Your task to perform on an android device: Open eBay Image 0: 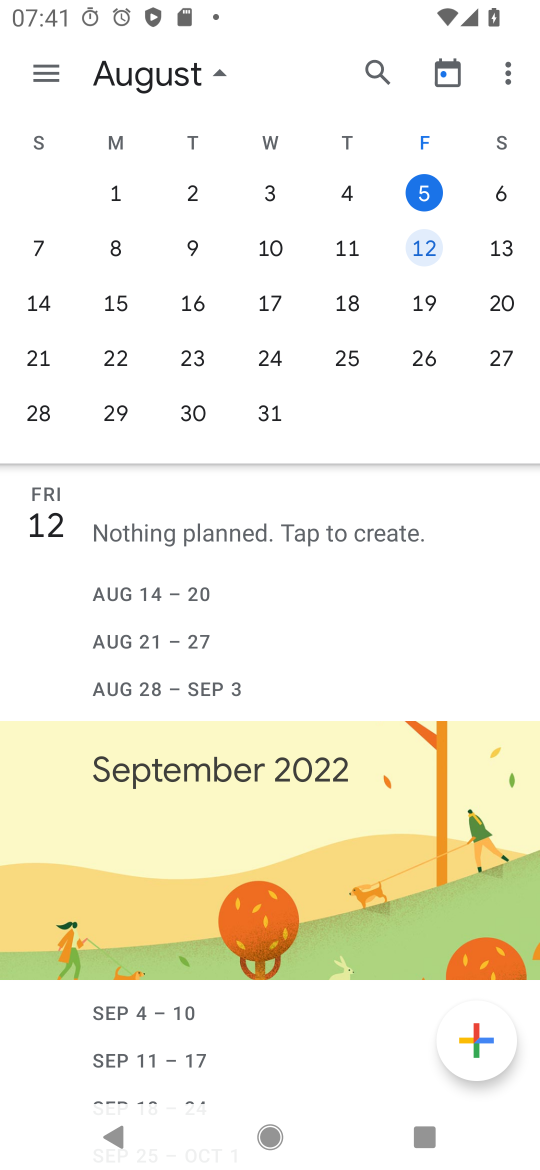
Step 0: press home button
Your task to perform on an android device: Open eBay Image 1: 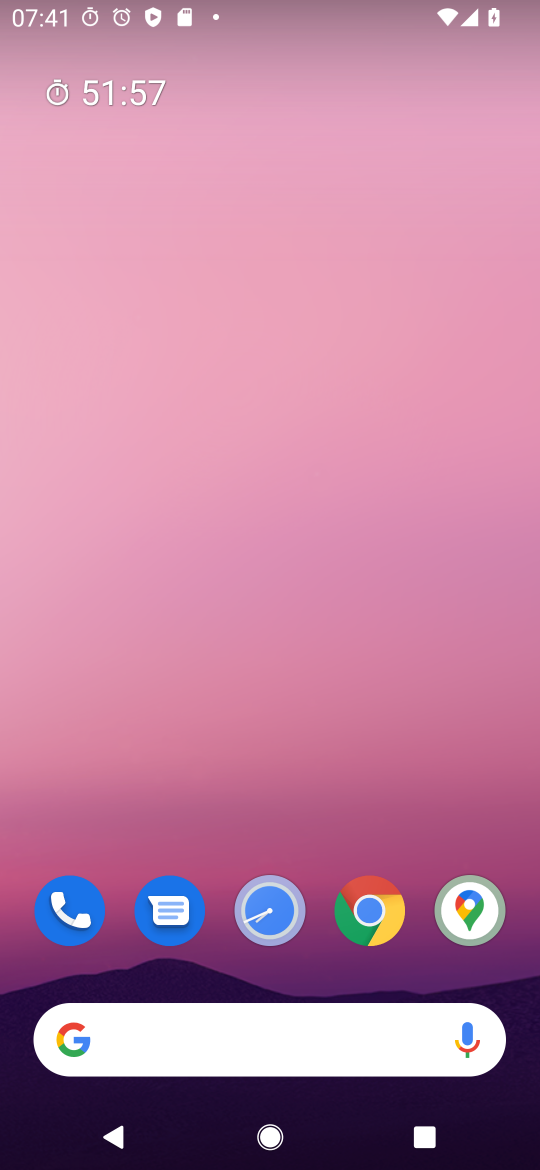
Step 1: drag from (337, 1015) to (293, 235)
Your task to perform on an android device: Open eBay Image 2: 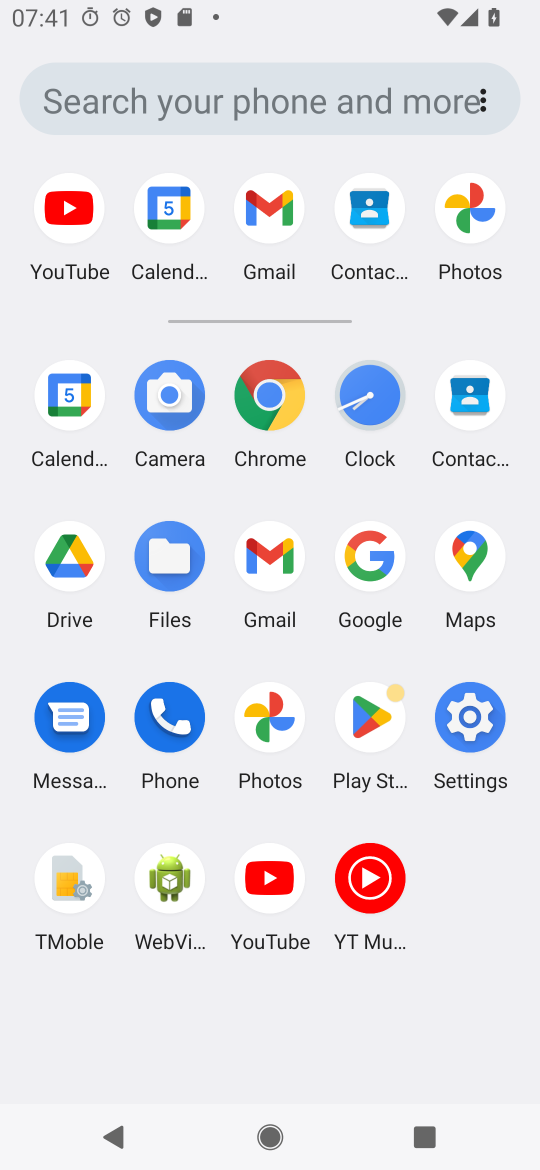
Step 2: click (267, 373)
Your task to perform on an android device: Open eBay Image 3: 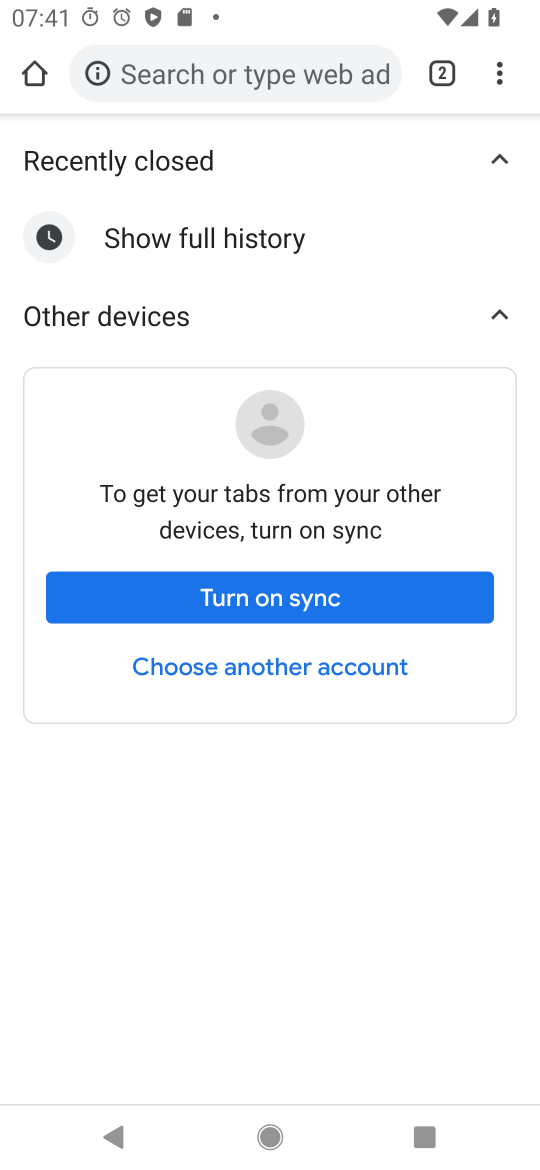
Step 3: click (325, 68)
Your task to perform on an android device: Open eBay Image 4: 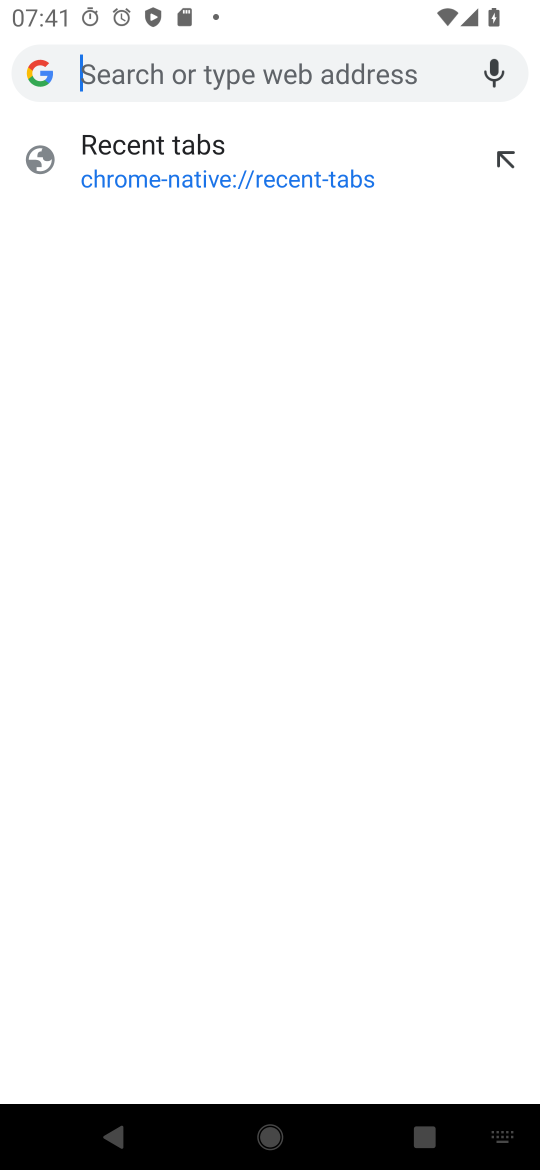
Step 4: type "ebay"
Your task to perform on an android device: Open eBay Image 5: 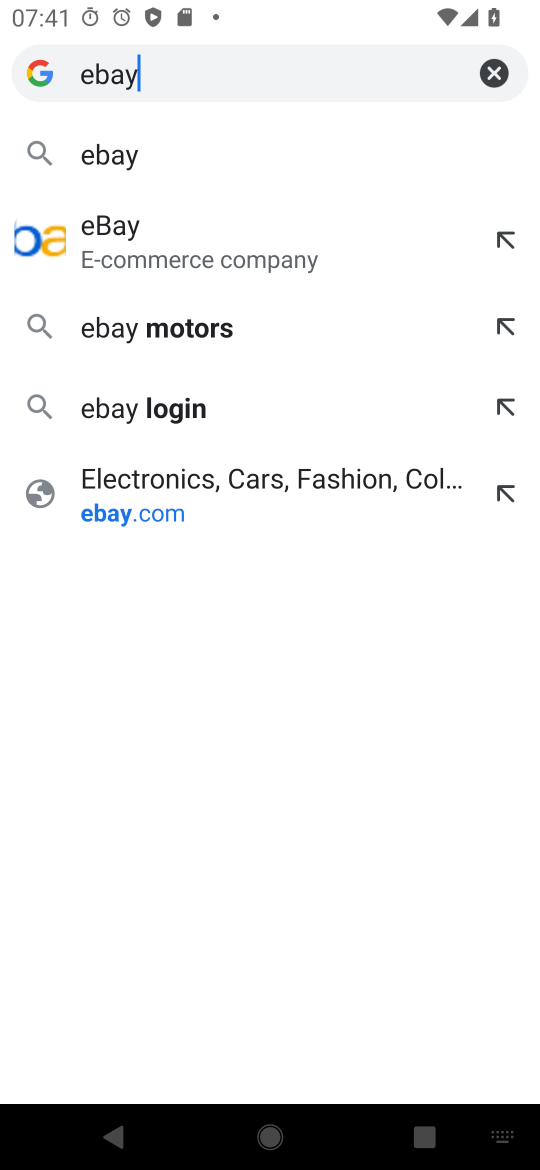
Step 5: click (148, 226)
Your task to perform on an android device: Open eBay Image 6: 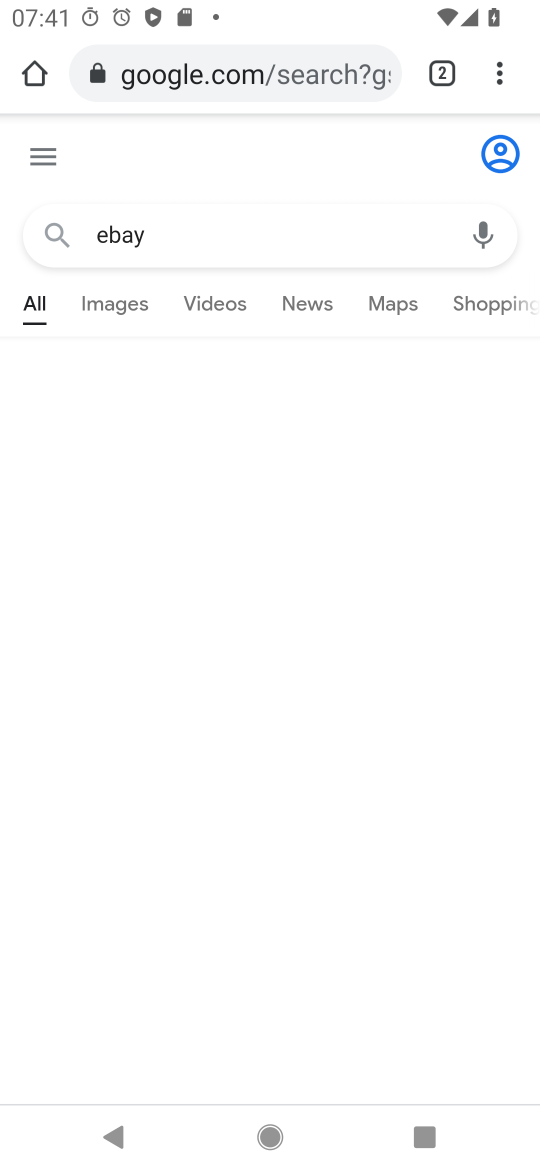
Step 6: task complete